Your task to perform on an android device: Open battery settings Image 0: 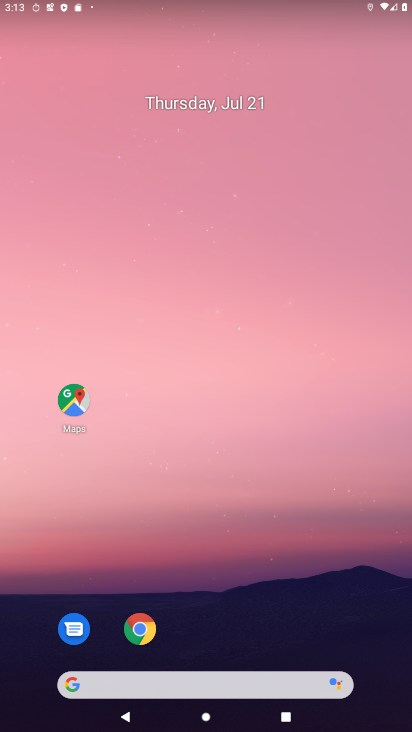
Step 0: drag from (230, 642) to (230, 13)
Your task to perform on an android device: Open battery settings Image 1: 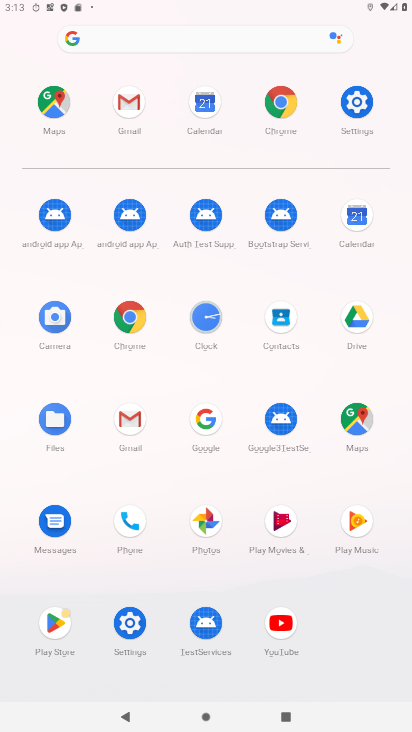
Step 1: click (356, 131)
Your task to perform on an android device: Open battery settings Image 2: 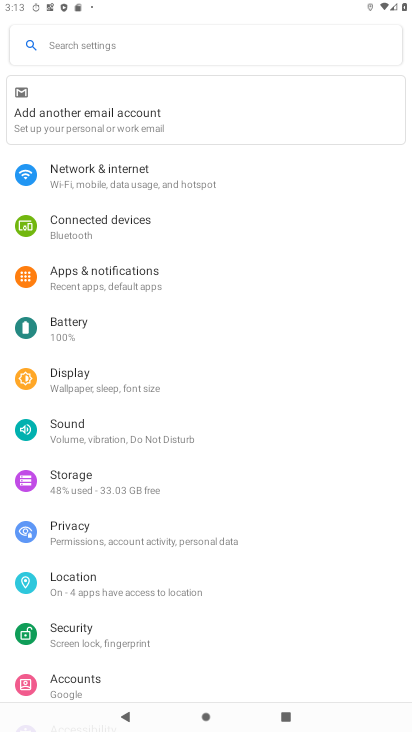
Step 2: click (70, 336)
Your task to perform on an android device: Open battery settings Image 3: 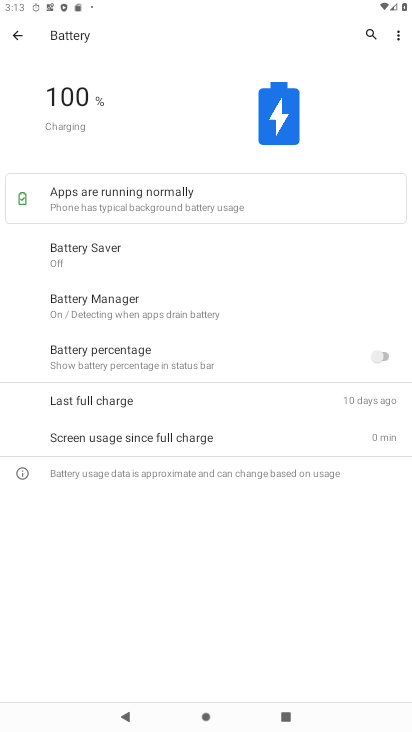
Step 3: task complete